Your task to perform on an android device: change the clock style Image 0: 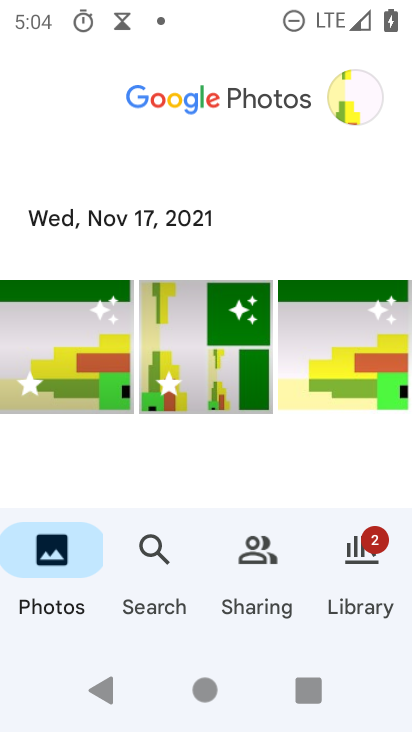
Step 0: press home button
Your task to perform on an android device: change the clock style Image 1: 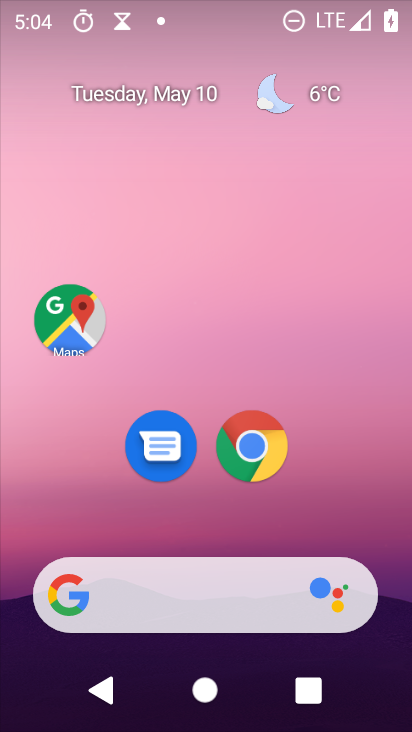
Step 1: drag from (312, 531) to (198, 68)
Your task to perform on an android device: change the clock style Image 2: 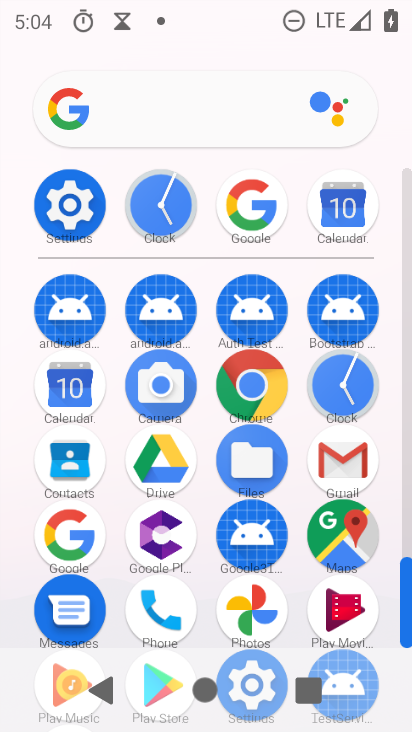
Step 2: click (349, 391)
Your task to perform on an android device: change the clock style Image 3: 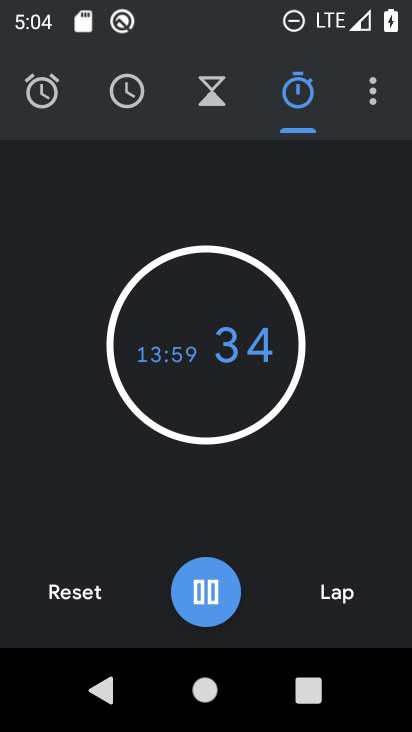
Step 3: click (365, 100)
Your task to perform on an android device: change the clock style Image 4: 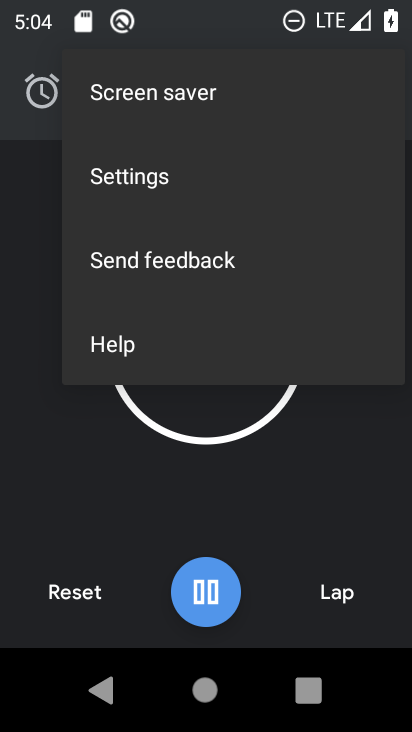
Step 4: click (182, 176)
Your task to perform on an android device: change the clock style Image 5: 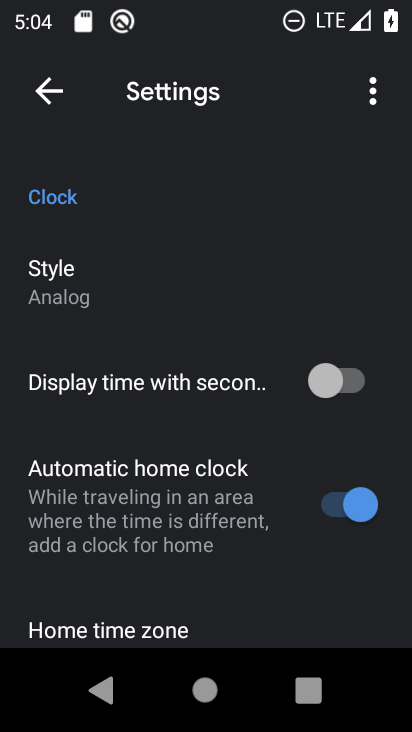
Step 5: click (135, 273)
Your task to perform on an android device: change the clock style Image 6: 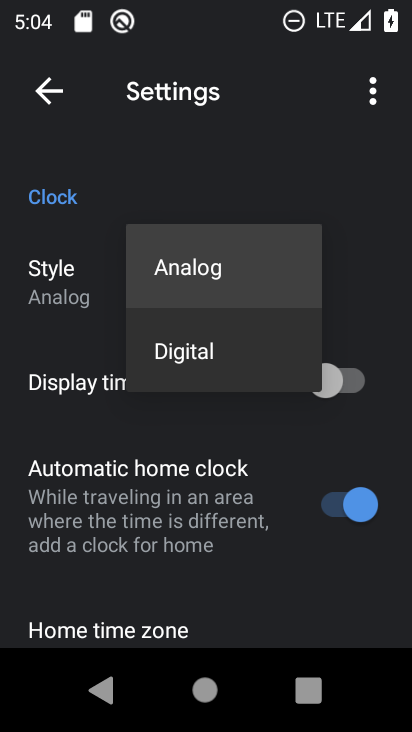
Step 6: click (224, 348)
Your task to perform on an android device: change the clock style Image 7: 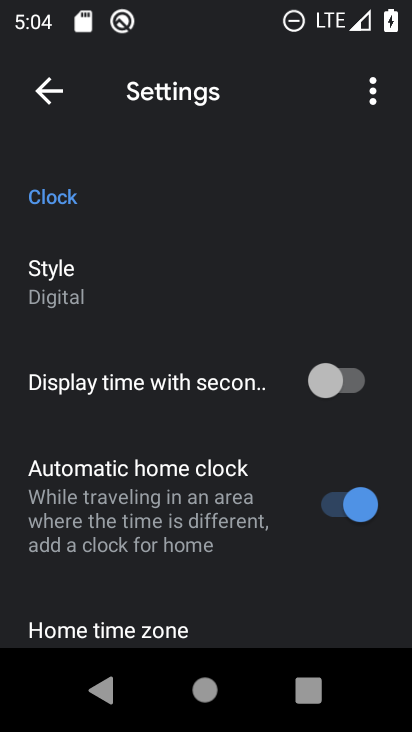
Step 7: task complete